Your task to perform on an android device: What is the capital of Switzerland? Image 0: 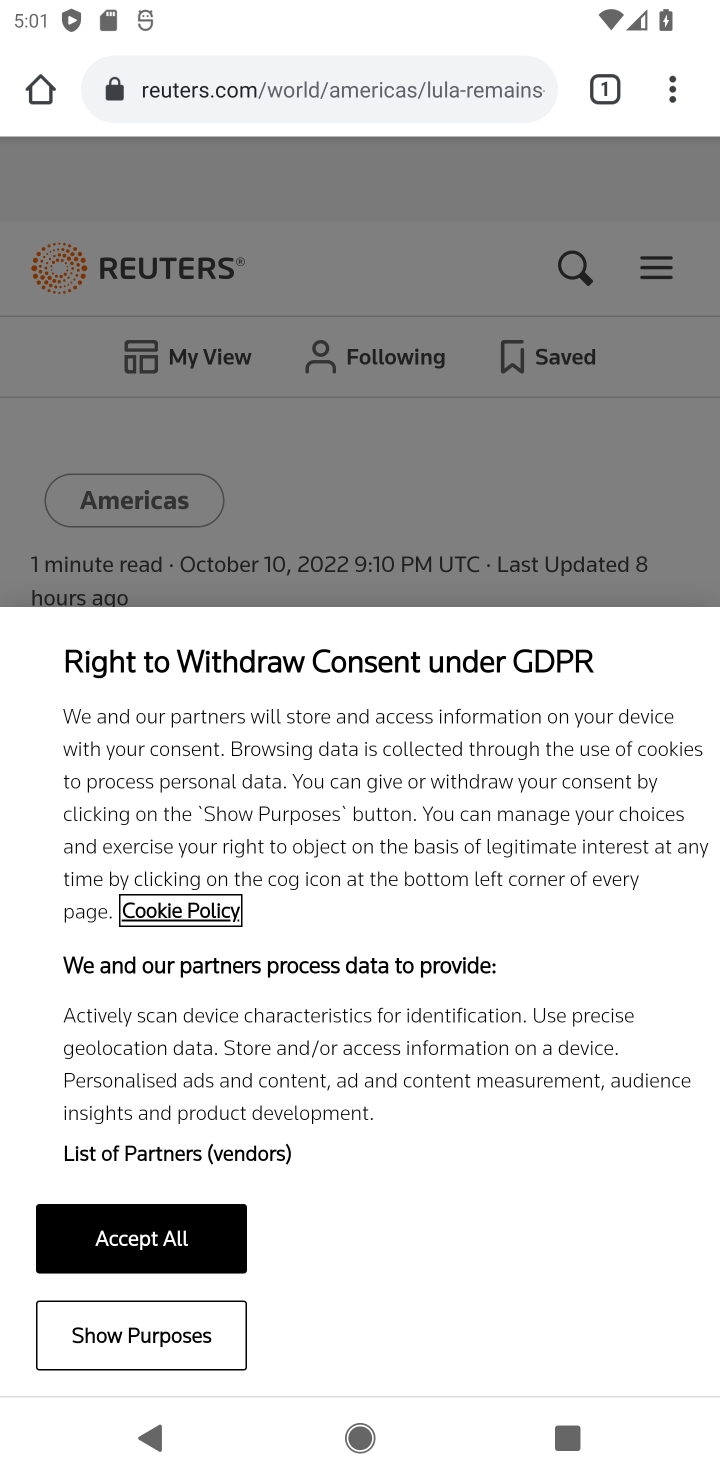
Step 0: press home button
Your task to perform on an android device: What is the capital of Switzerland? Image 1: 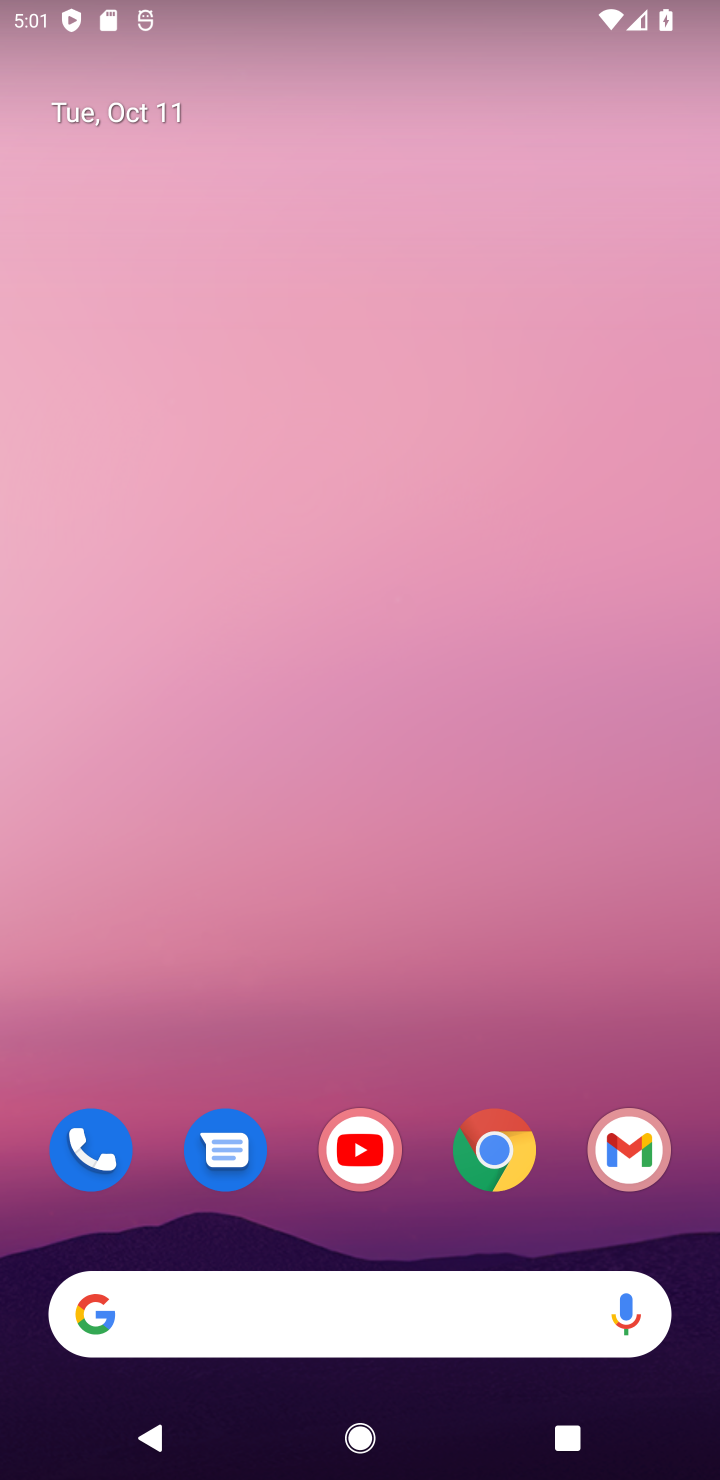
Step 1: click (499, 1155)
Your task to perform on an android device: What is the capital of Switzerland? Image 2: 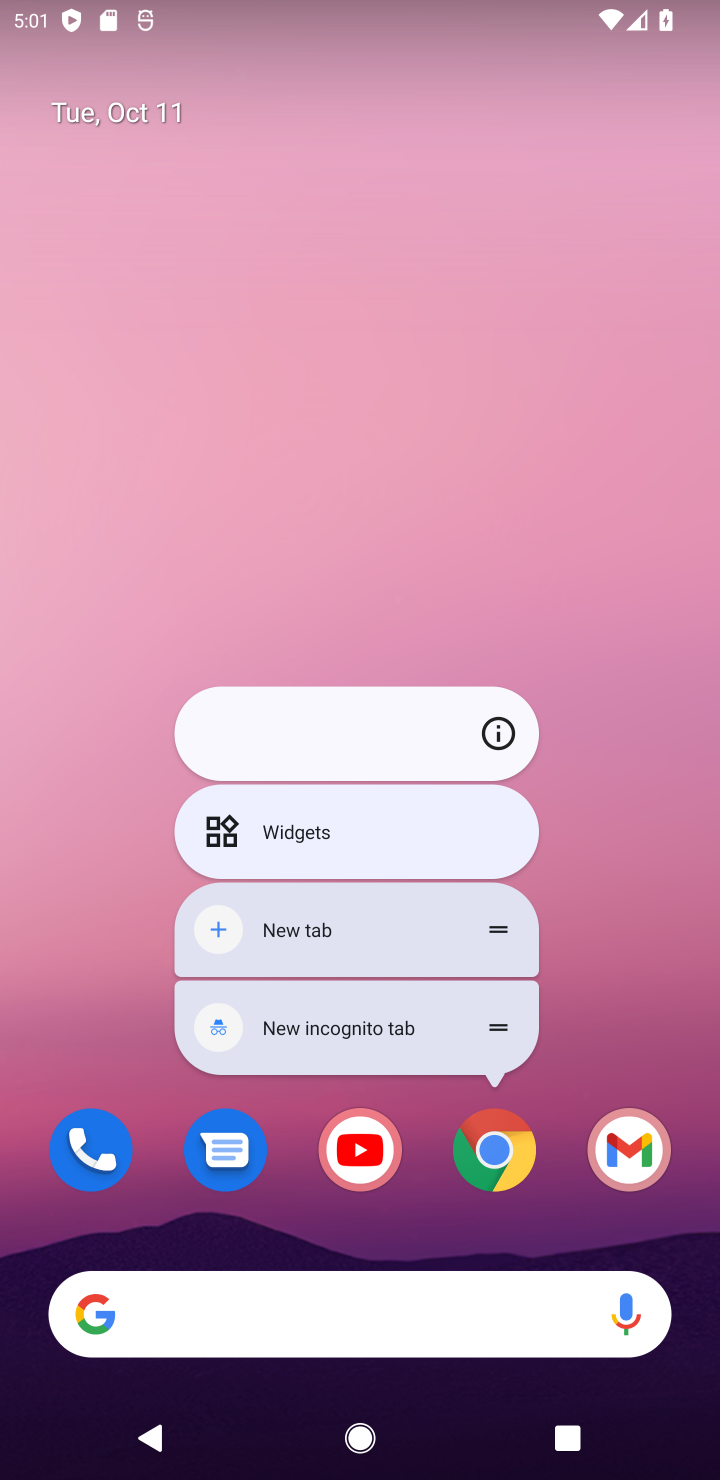
Step 2: click (677, 852)
Your task to perform on an android device: What is the capital of Switzerland? Image 3: 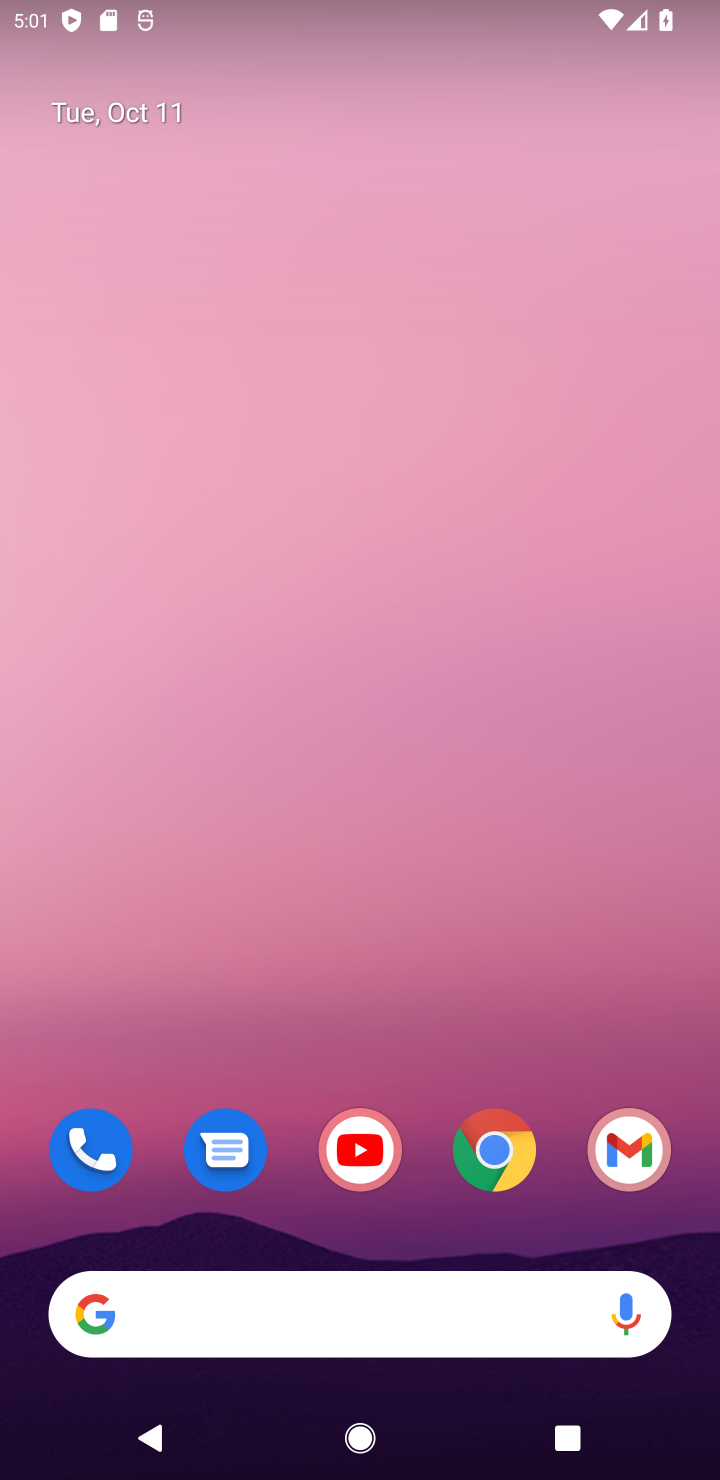
Step 3: click (515, 1148)
Your task to perform on an android device: What is the capital of Switzerland? Image 4: 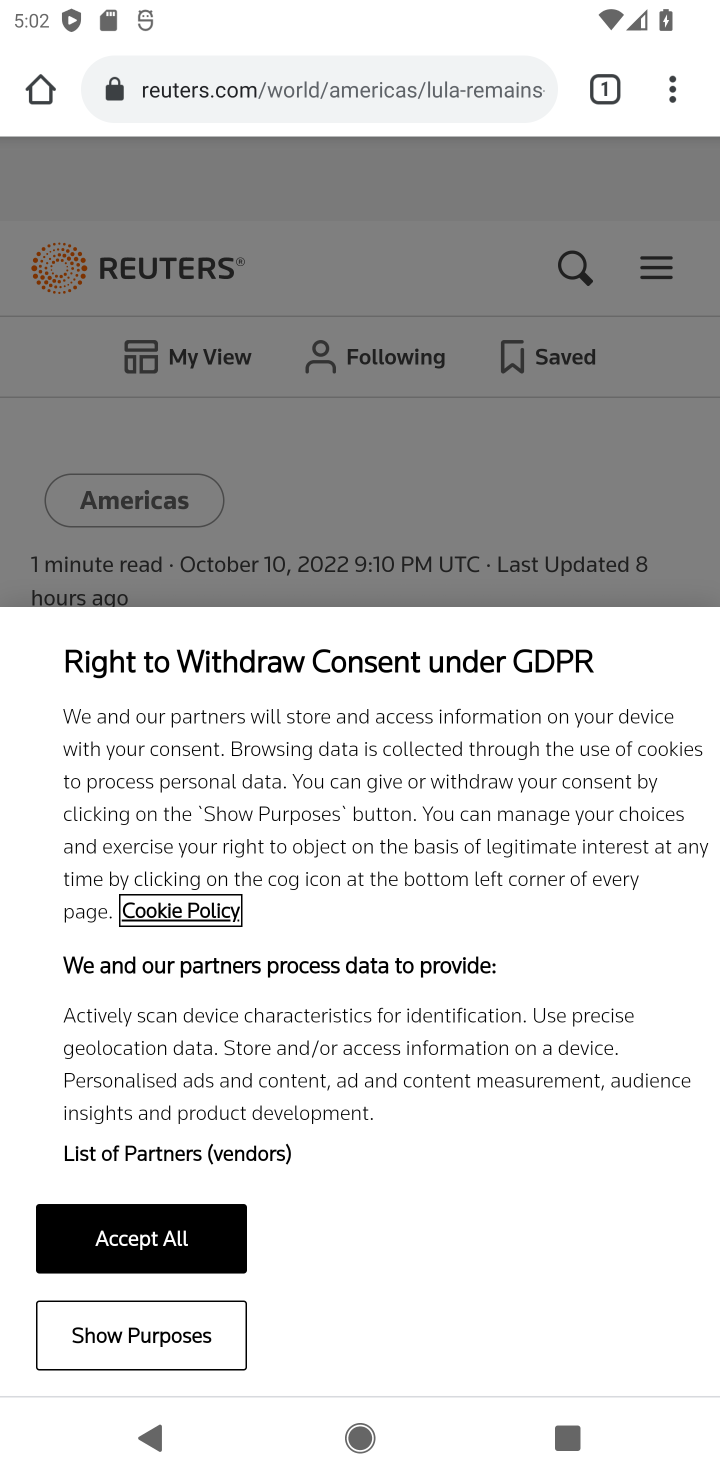
Step 4: click (231, 83)
Your task to perform on an android device: What is the capital of Switzerland? Image 5: 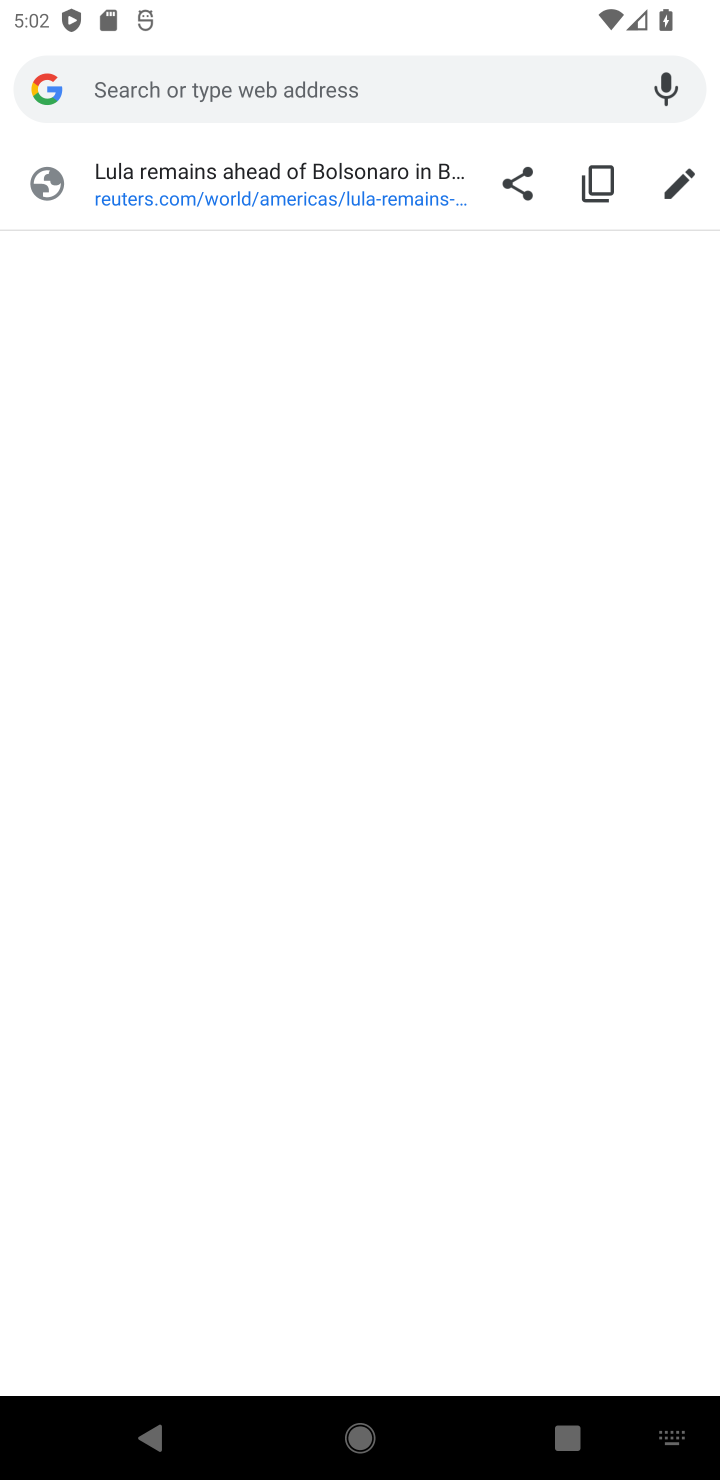
Step 5: type "capital of switzerland"
Your task to perform on an android device: What is the capital of Switzerland? Image 6: 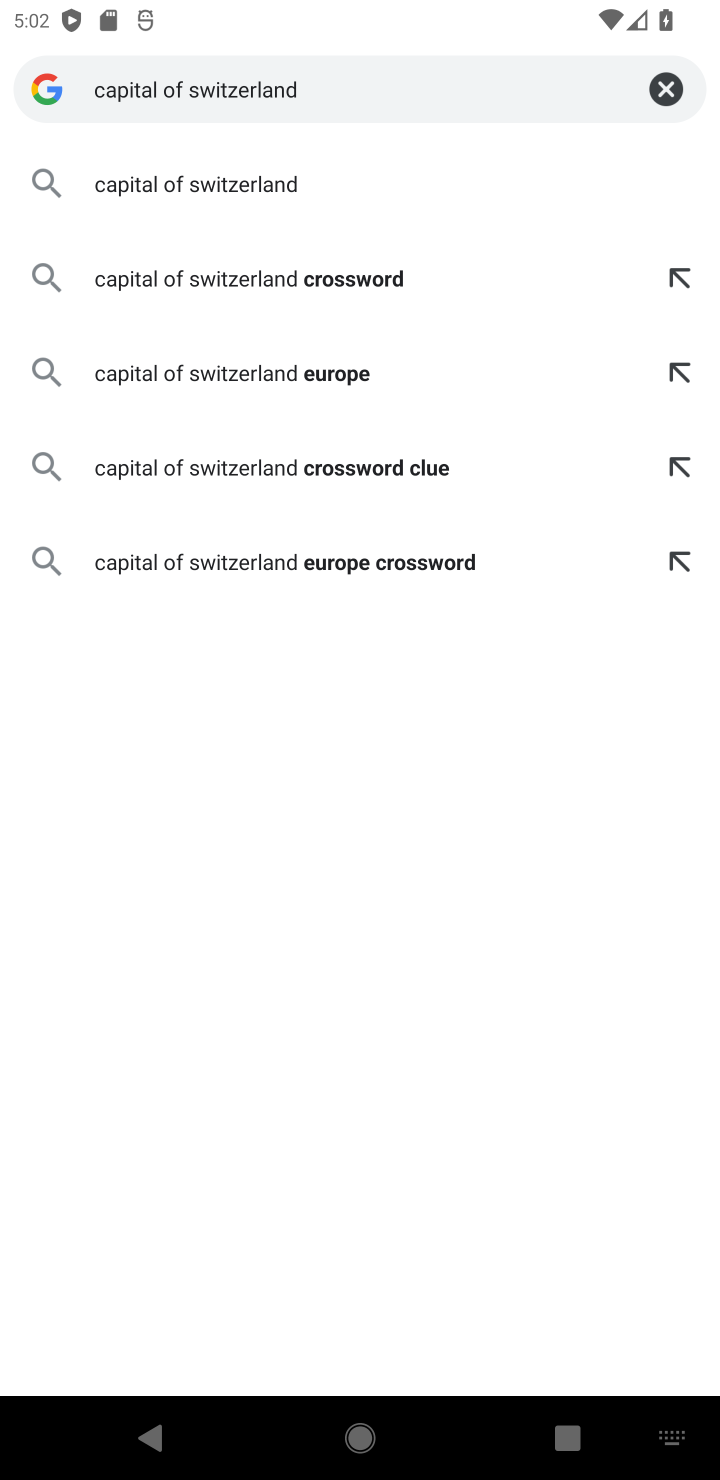
Step 6: click (191, 189)
Your task to perform on an android device: What is the capital of Switzerland? Image 7: 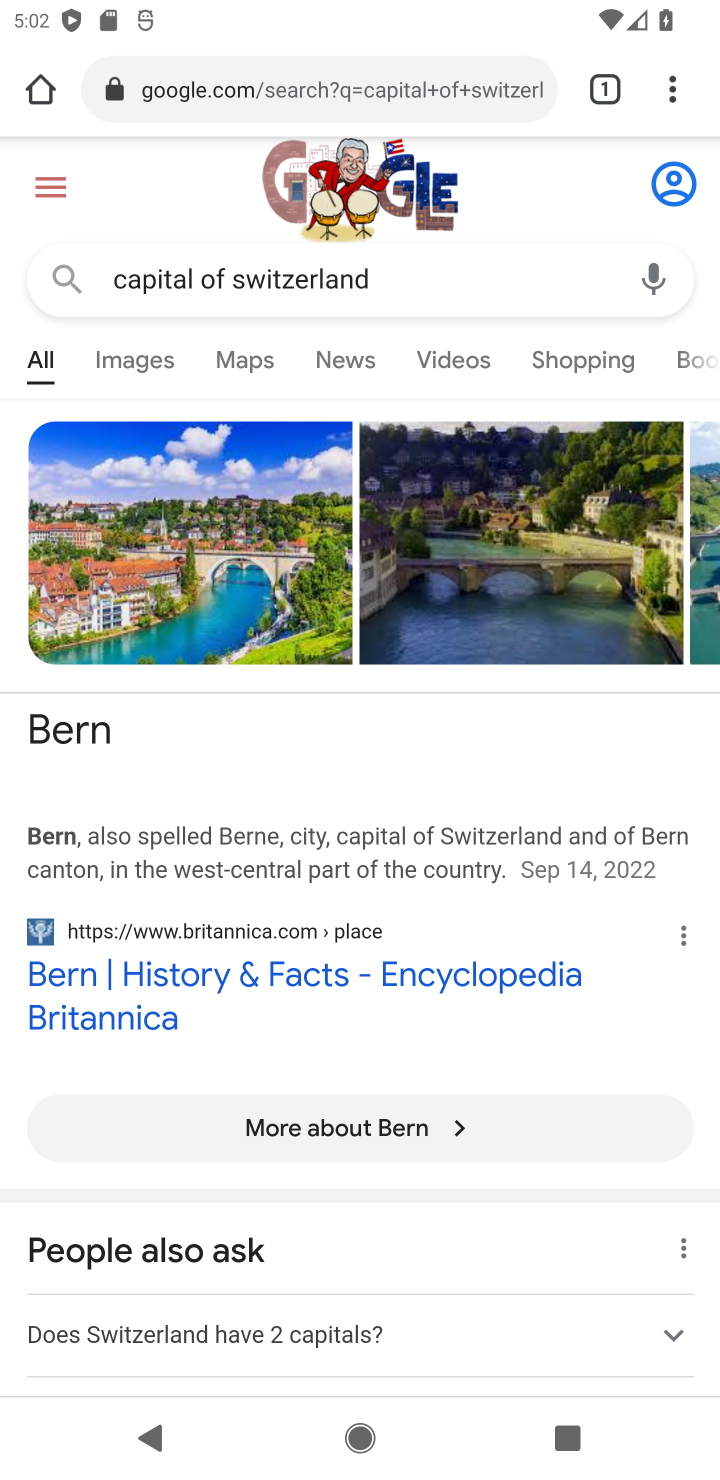
Step 7: click (70, 749)
Your task to perform on an android device: What is the capital of Switzerland? Image 8: 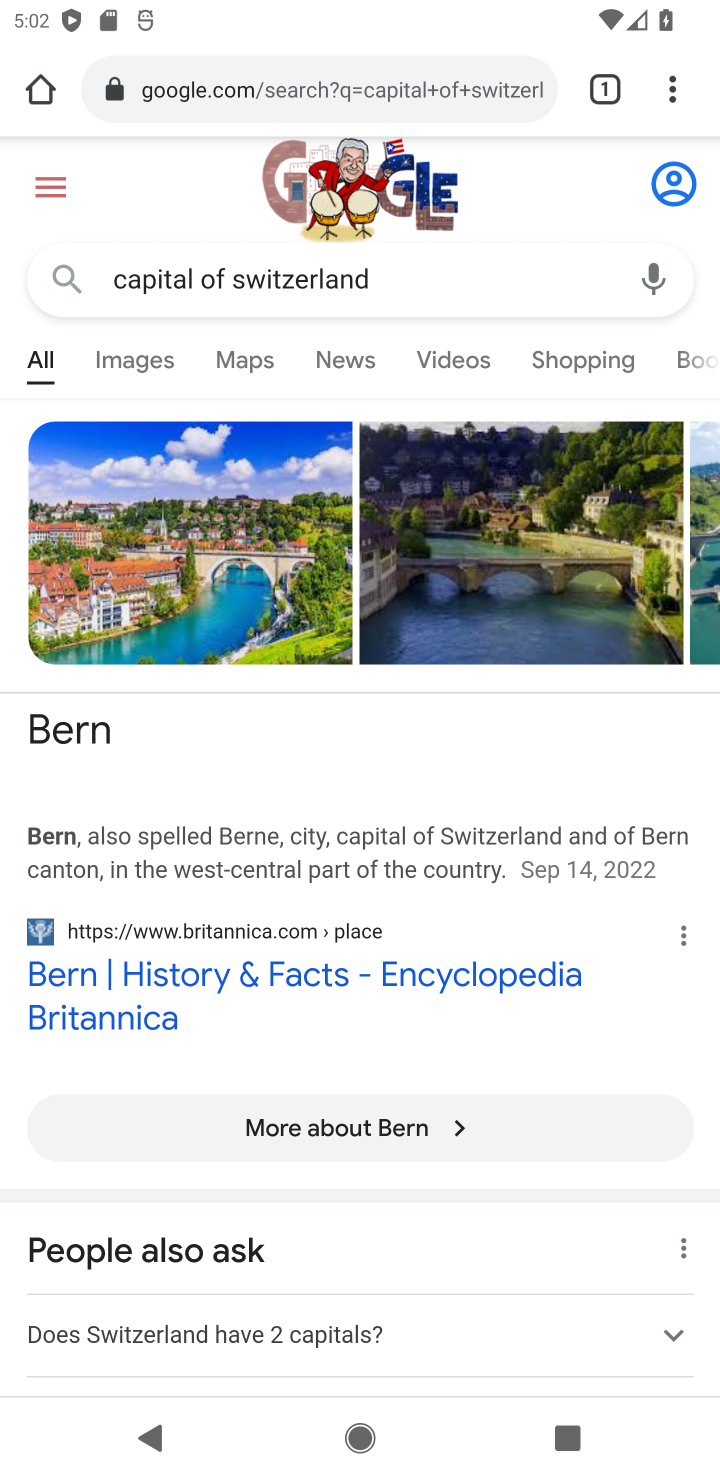
Step 8: task complete